Your task to perform on an android device: Open CNN.com Image 0: 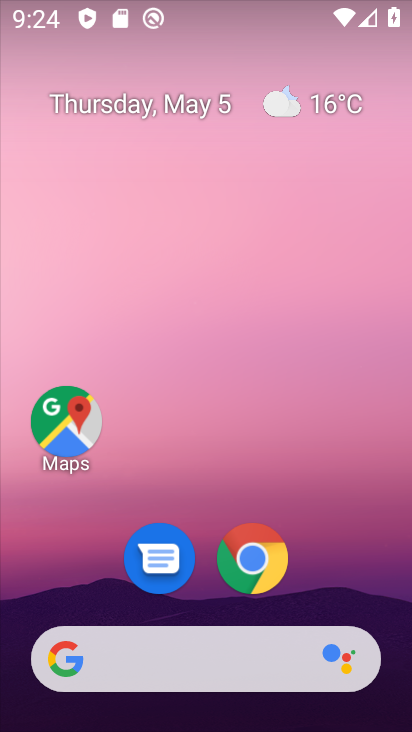
Step 0: click (274, 549)
Your task to perform on an android device: Open CNN.com Image 1: 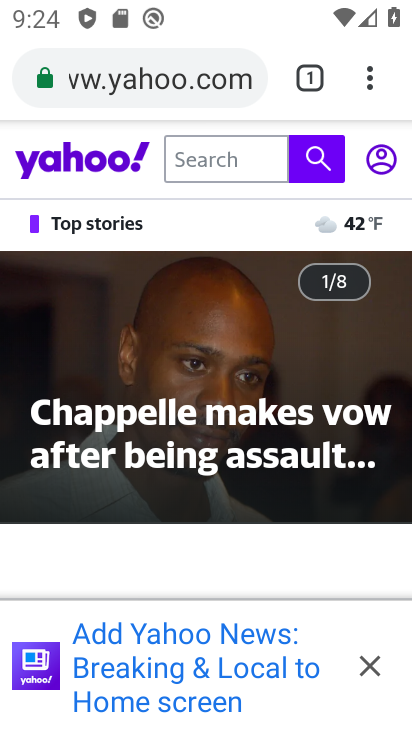
Step 1: click (184, 73)
Your task to perform on an android device: Open CNN.com Image 2: 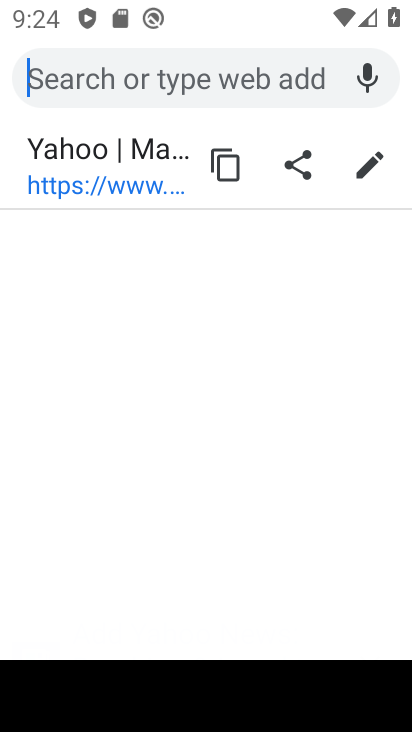
Step 2: type "cnn.com"
Your task to perform on an android device: Open CNN.com Image 3: 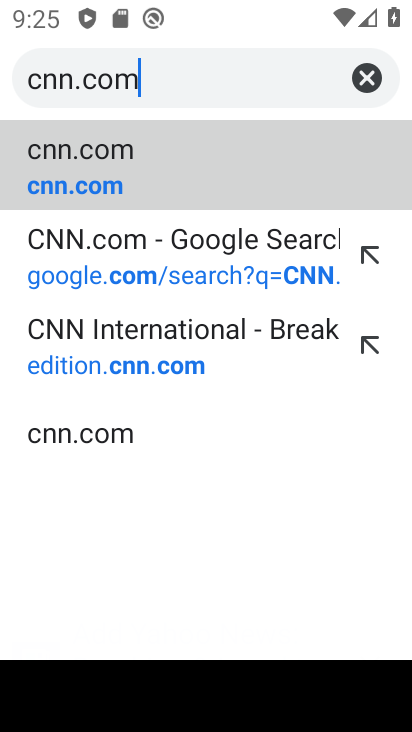
Step 3: click (117, 190)
Your task to perform on an android device: Open CNN.com Image 4: 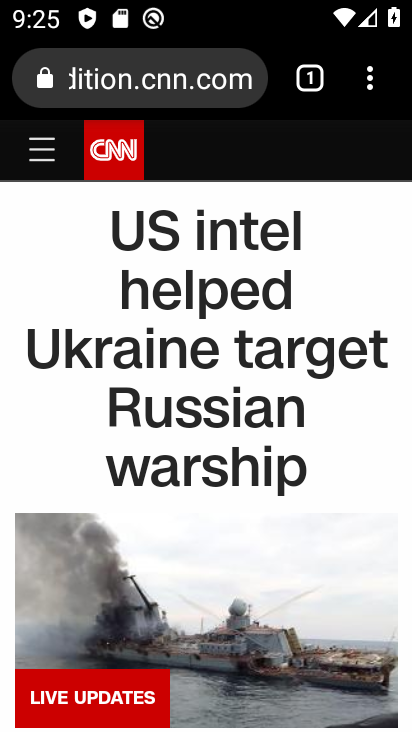
Step 4: task complete